Your task to perform on an android device: show emergency info Image 0: 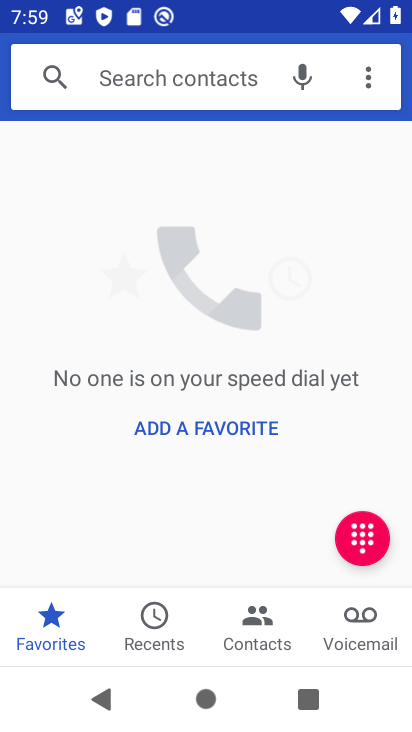
Step 0: press home button
Your task to perform on an android device: show emergency info Image 1: 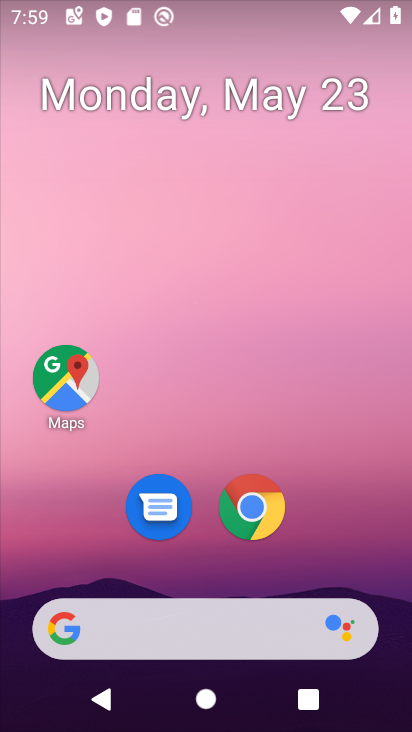
Step 1: drag from (313, 554) to (319, 200)
Your task to perform on an android device: show emergency info Image 2: 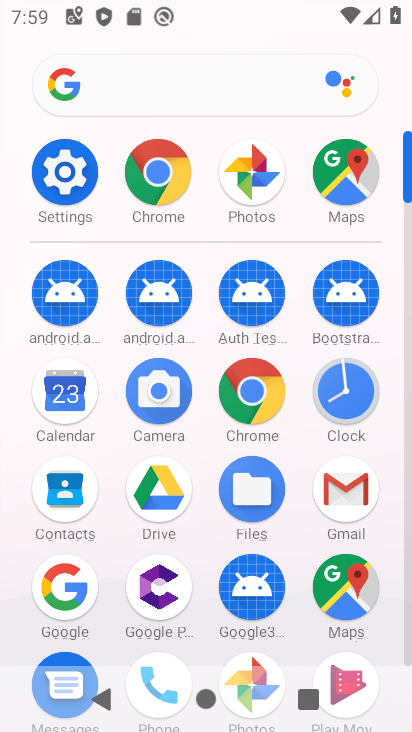
Step 2: click (61, 155)
Your task to perform on an android device: show emergency info Image 3: 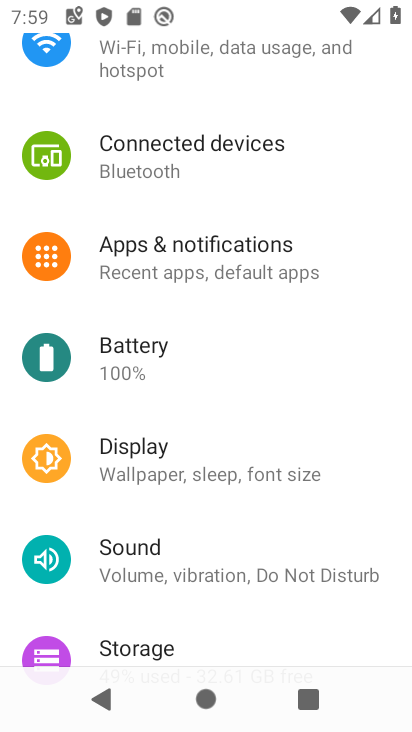
Step 3: drag from (238, 586) to (245, 327)
Your task to perform on an android device: show emergency info Image 4: 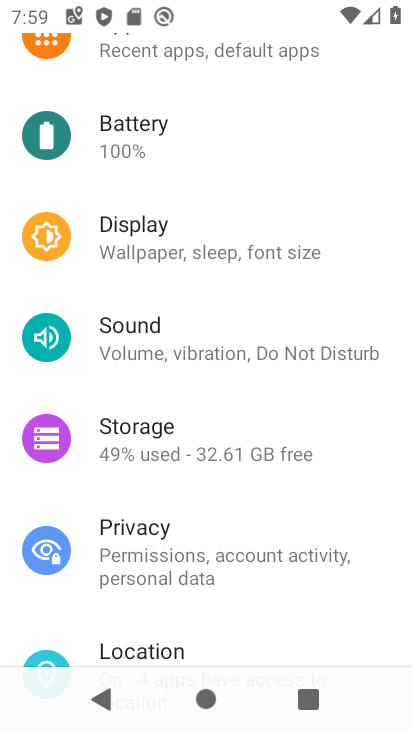
Step 4: drag from (257, 626) to (252, 223)
Your task to perform on an android device: show emergency info Image 5: 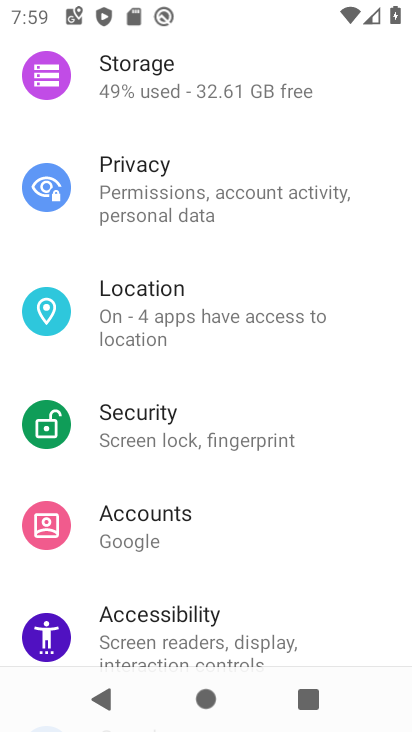
Step 5: drag from (240, 560) to (272, 218)
Your task to perform on an android device: show emergency info Image 6: 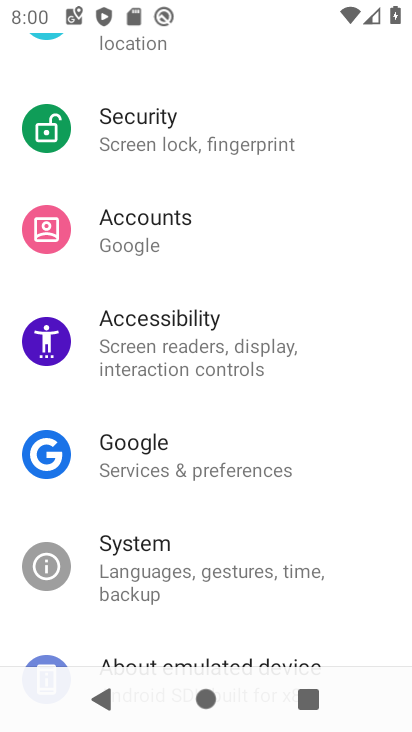
Step 6: drag from (236, 556) to (275, 197)
Your task to perform on an android device: show emergency info Image 7: 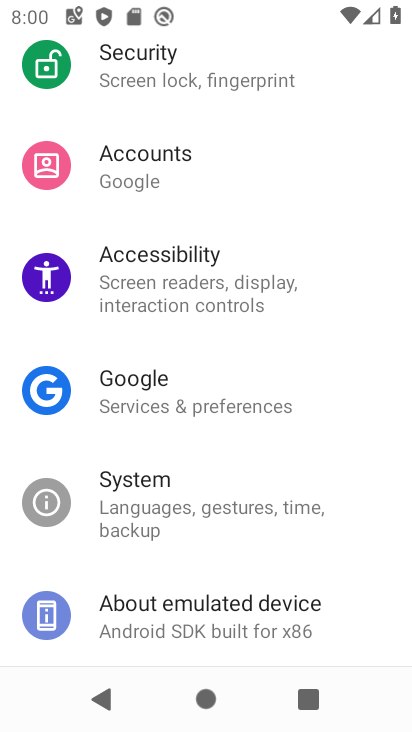
Step 7: click (240, 610)
Your task to perform on an android device: show emergency info Image 8: 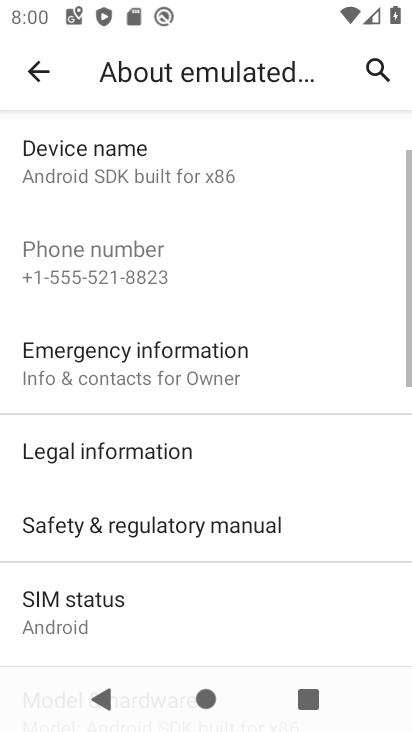
Step 8: click (169, 388)
Your task to perform on an android device: show emergency info Image 9: 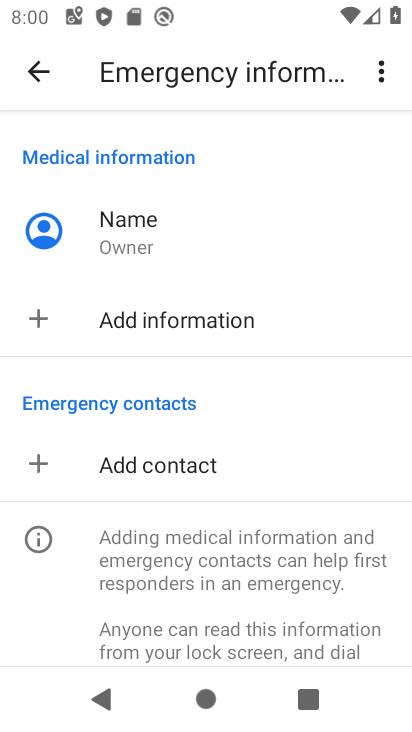
Step 9: task complete